Your task to perform on an android device: Open privacy settings Image 0: 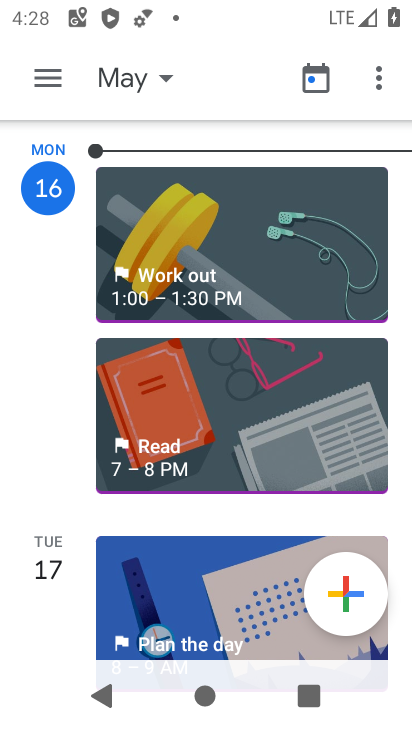
Step 0: press home button
Your task to perform on an android device: Open privacy settings Image 1: 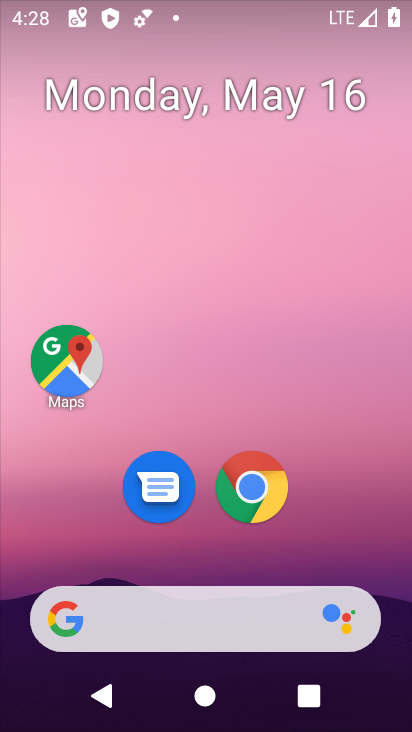
Step 1: drag from (405, 615) to (266, 49)
Your task to perform on an android device: Open privacy settings Image 2: 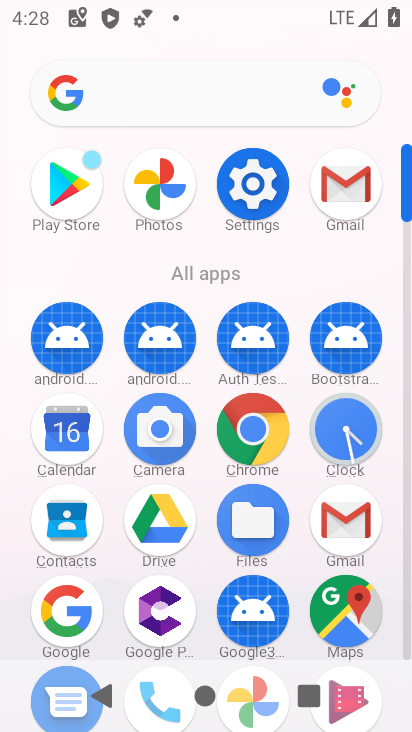
Step 2: click (406, 642)
Your task to perform on an android device: Open privacy settings Image 3: 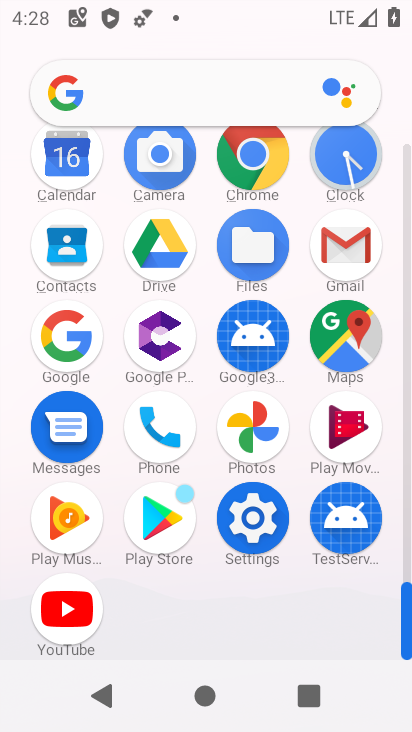
Step 3: click (253, 512)
Your task to perform on an android device: Open privacy settings Image 4: 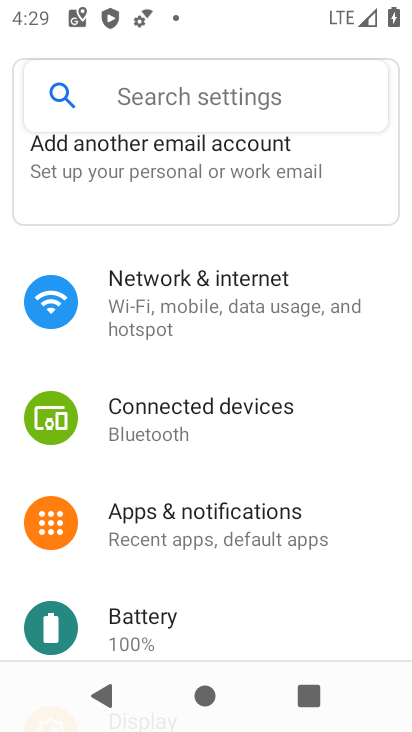
Step 4: drag from (343, 583) to (332, 187)
Your task to perform on an android device: Open privacy settings Image 5: 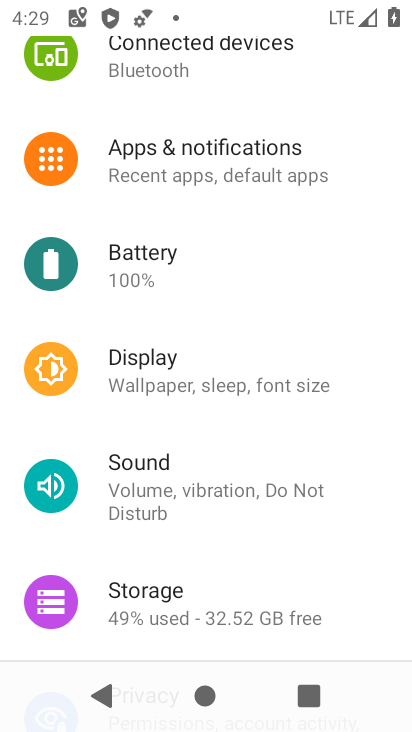
Step 5: drag from (358, 599) to (350, 227)
Your task to perform on an android device: Open privacy settings Image 6: 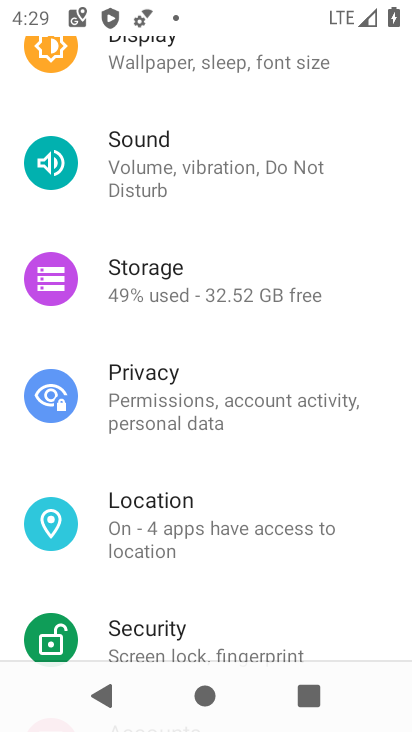
Step 6: click (150, 399)
Your task to perform on an android device: Open privacy settings Image 7: 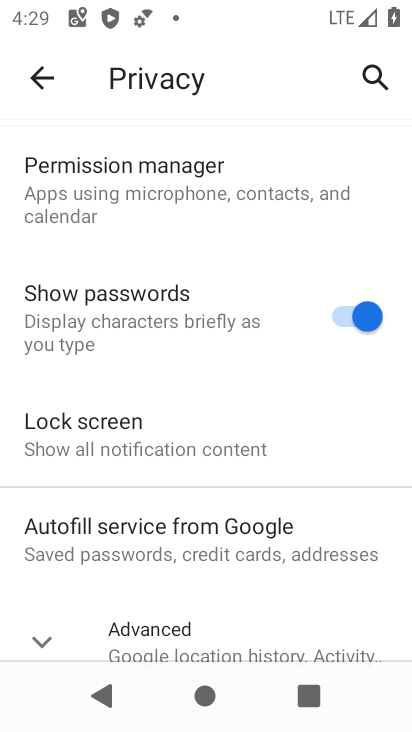
Step 7: click (49, 639)
Your task to perform on an android device: Open privacy settings Image 8: 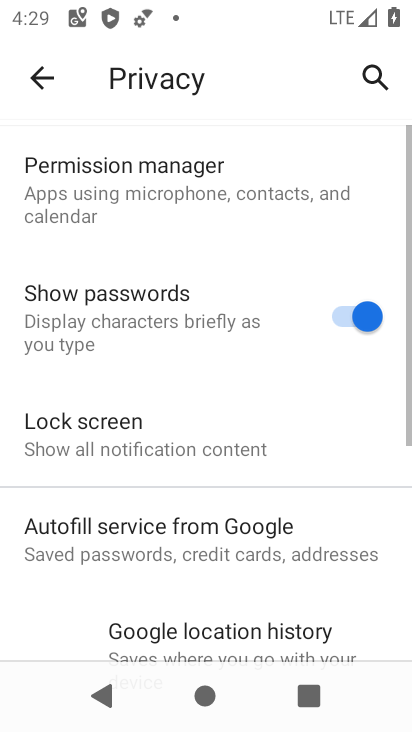
Step 8: task complete